Your task to perform on an android device: Show me the alarms in the clock app Image 0: 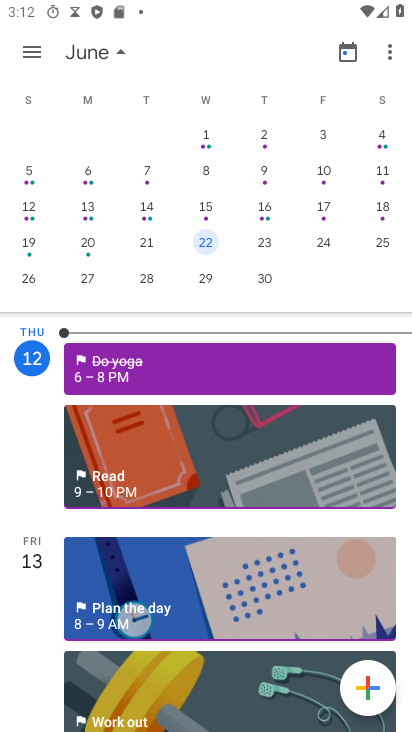
Step 0: press home button
Your task to perform on an android device: Show me the alarms in the clock app Image 1: 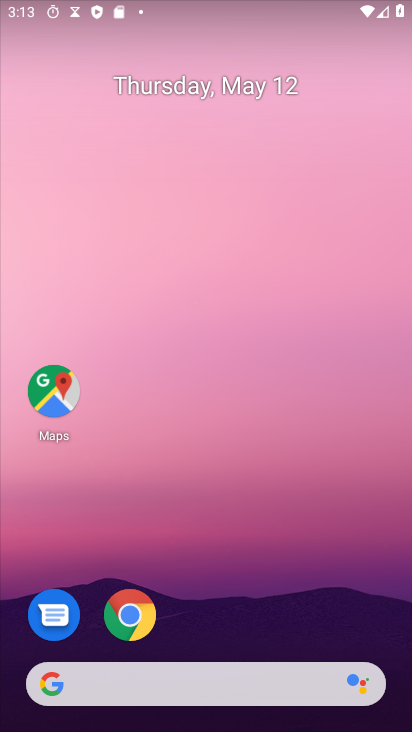
Step 1: drag from (49, 521) to (244, 189)
Your task to perform on an android device: Show me the alarms in the clock app Image 2: 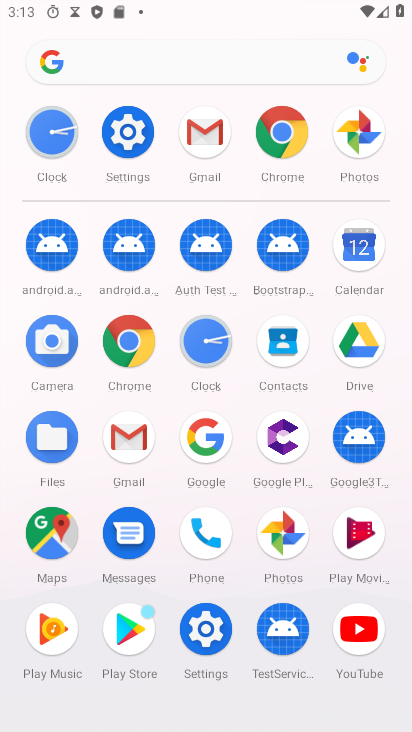
Step 2: click (206, 342)
Your task to perform on an android device: Show me the alarms in the clock app Image 3: 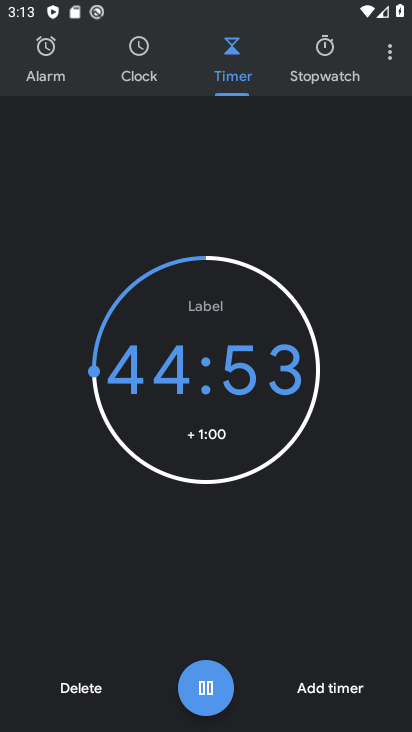
Step 3: click (54, 70)
Your task to perform on an android device: Show me the alarms in the clock app Image 4: 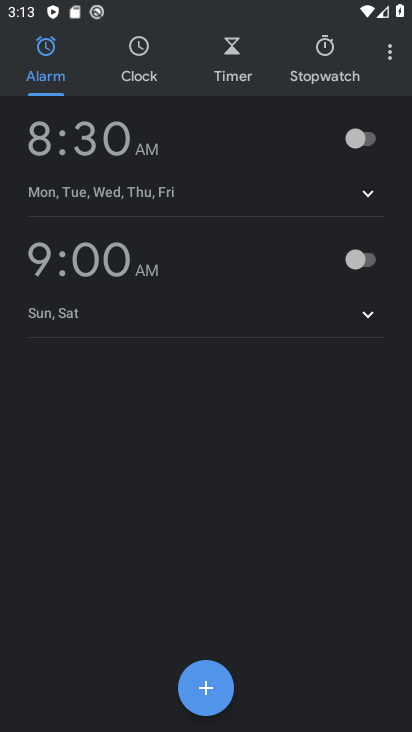
Step 4: click (134, 67)
Your task to perform on an android device: Show me the alarms in the clock app Image 5: 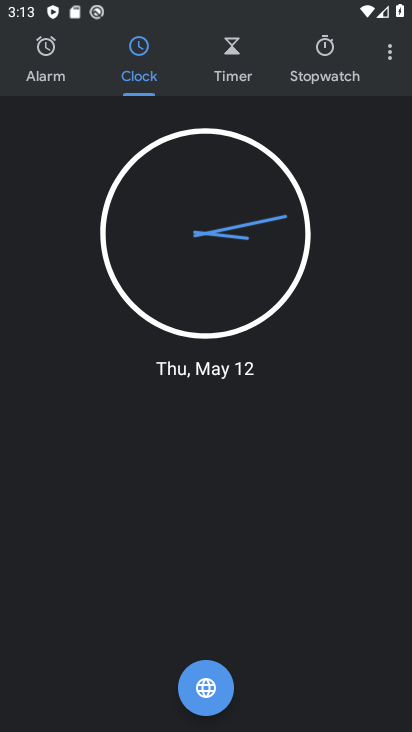
Step 5: task complete